Your task to perform on an android device: Go to Yahoo.com Image 0: 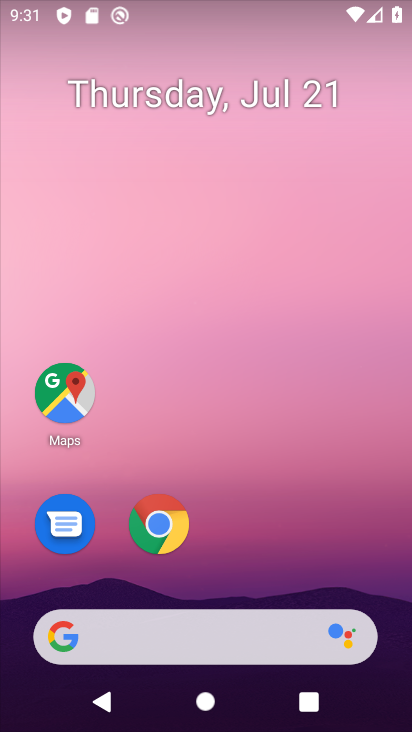
Step 0: press home button
Your task to perform on an android device: Go to Yahoo.com Image 1: 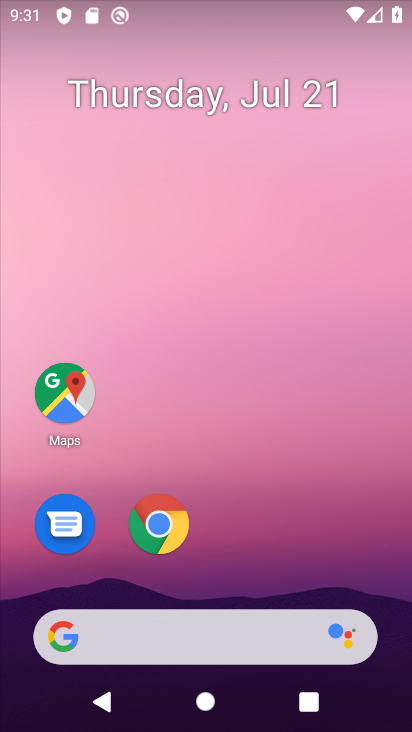
Step 1: click (164, 525)
Your task to perform on an android device: Go to Yahoo.com Image 2: 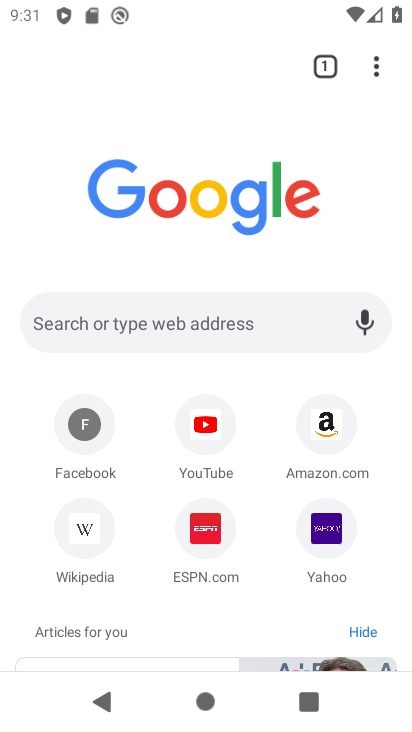
Step 2: click (341, 523)
Your task to perform on an android device: Go to Yahoo.com Image 3: 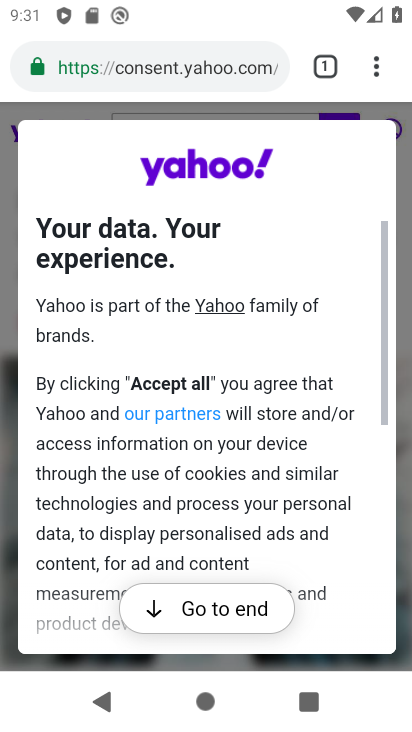
Step 3: drag from (202, 587) to (280, 86)
Your task to perform on an android device: Go to Yahoo.com Image 4: 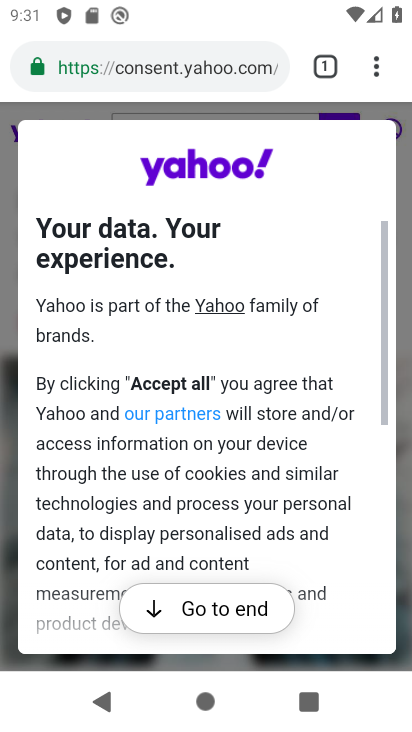
Step 4: click (232, 610)
Your task to perform on an android device: Go to Yahoo.com Image 5: 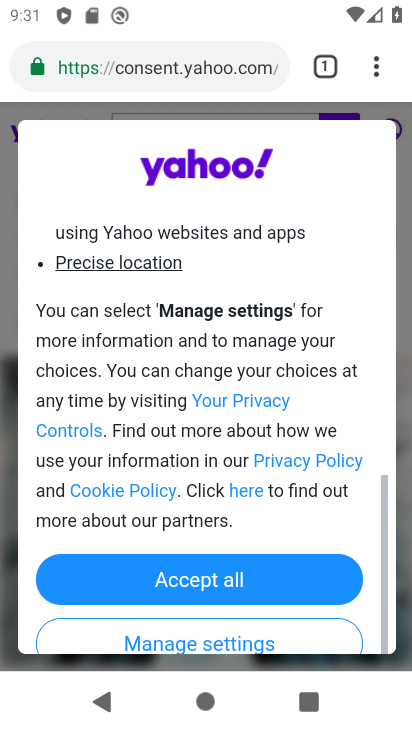
Step 5: click (210, 581)
Your task to perform on an android device: Go to Yahoo.com Image 6: 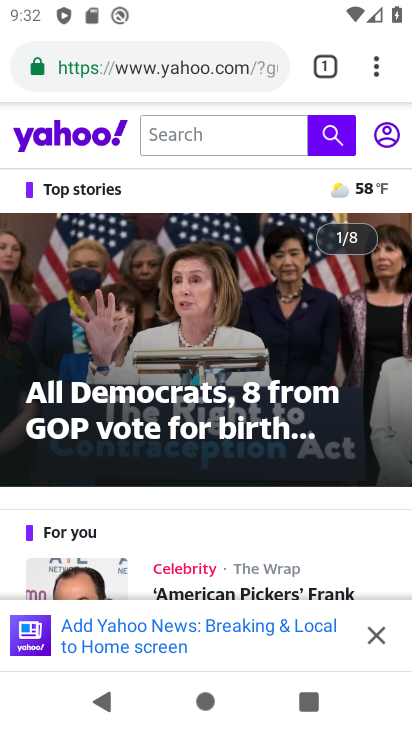
Step 6: task complete